Your task to perform on an android device: Go to battery settings Image 0: 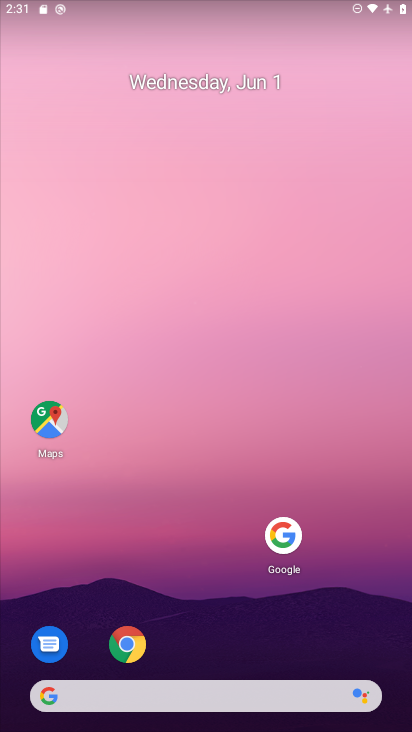
Step 0: drag from (202, 695) to (329, 226)
Your task to perform on an android device: Go to battery settings Image 1: 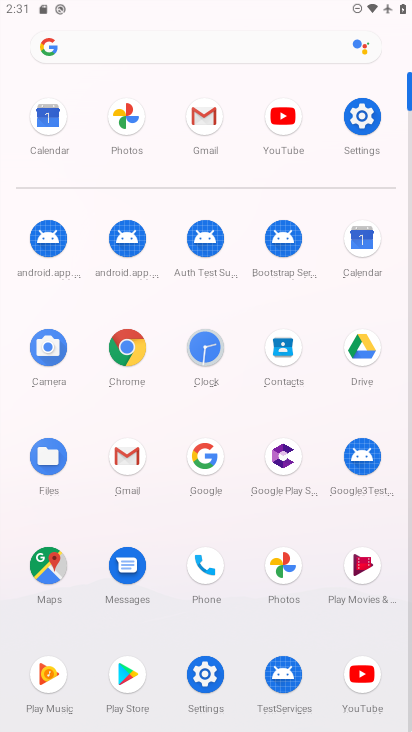
Step 1: click (359, 121)
Your task to perform on an android device: Go to battery settings Image 2: 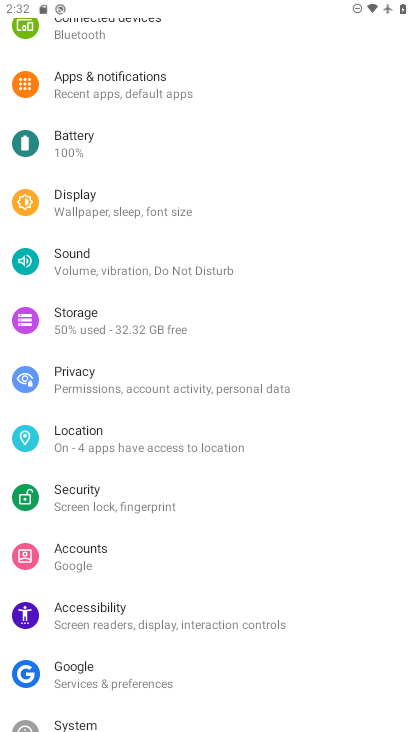
Step 2: click (76, 146)
Your task to perform on an android device: Go to battery settings Image 3: 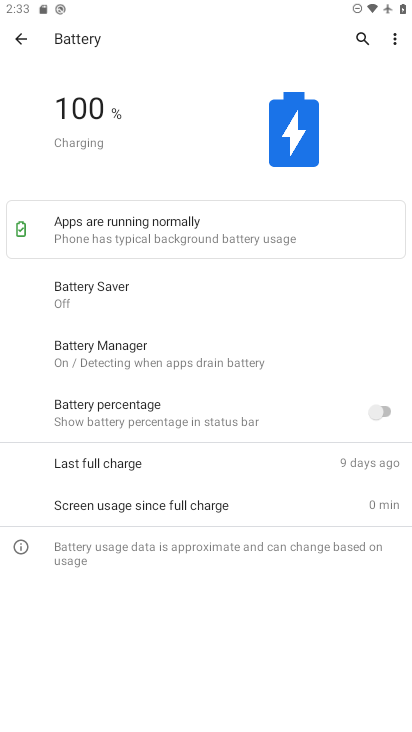
Step 3: task complete